Your task to perform on an android device: see tabs open on other devices in the chrome app Image 0: 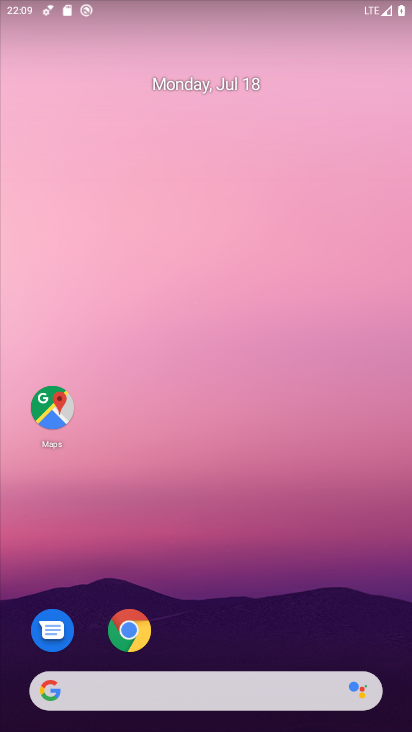
Step 0: drag from (260, 698) to (211, 321)
Your task to perform on an android device: see tabs open on other devices in the chrome app Image 1: 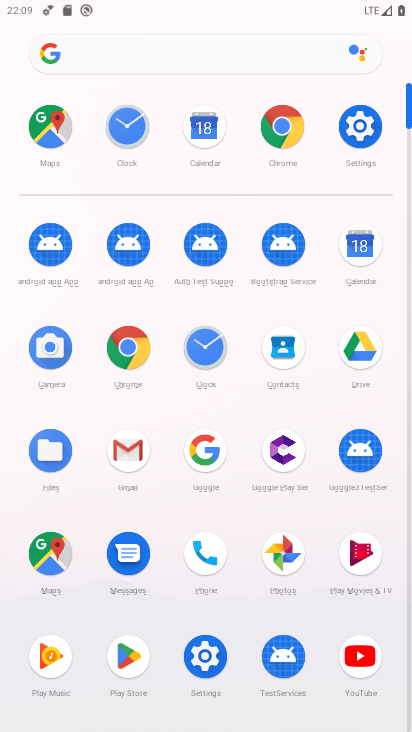
Step 1: click (272, 113)
Your task to perform on an android device: see tabs open on other devices in the chrome app Image 2: 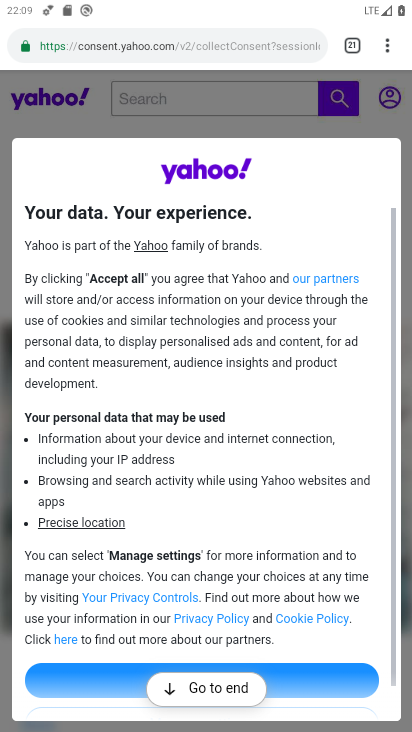
Step 2: click (393, 40)
Your task to perform on an android device: see tabs open on other devices in the chrome app Image 3: 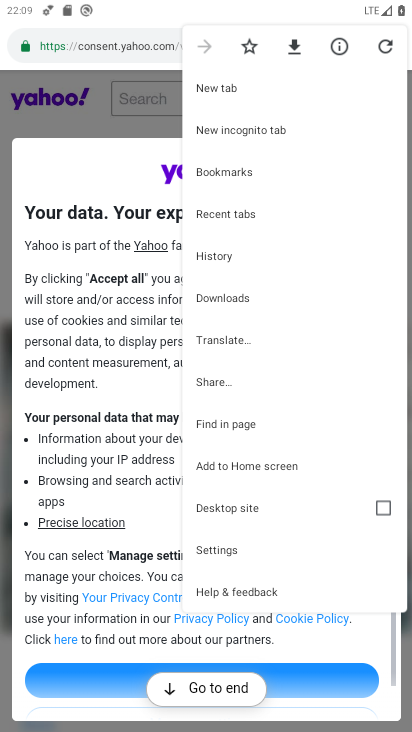
Step 3: click (229, 260)
Your task to perform on an android device: see tabs open on other devices in the chrome app Image 4: 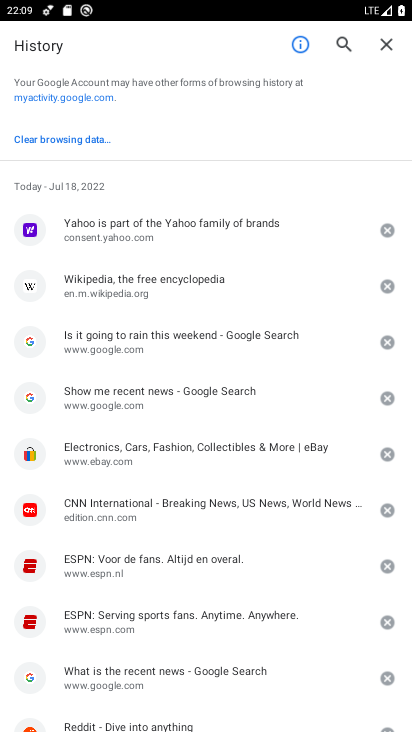
Step 4: task complete